Your task to perform on an android device: Show me popular games on the Play Store Image 0: 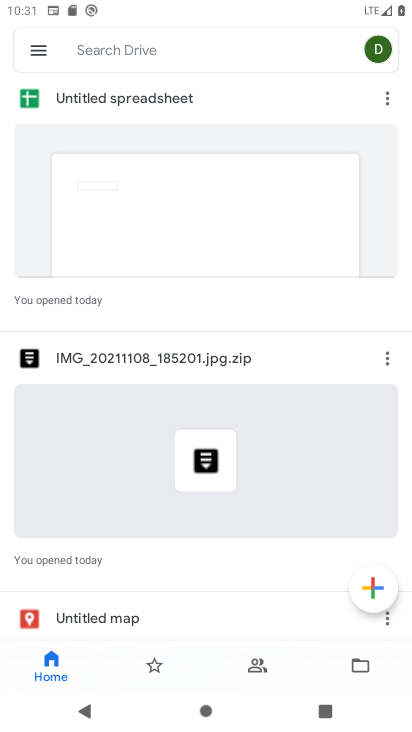
Step 0: press home button
Your task to perform on an android device: Show me popular games on the Play Store Image 1: 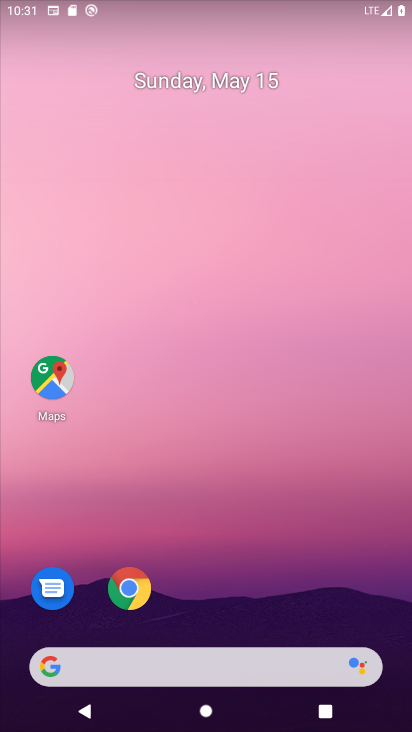
Step 1: drag from (222, 600) to (149, 319)
Your task to perform on an android device: Show me popular games on the Play Store Image 2: 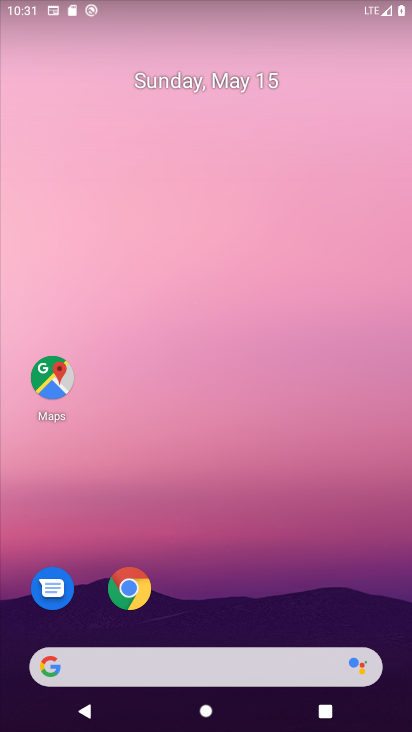
Step 2: drag from (205, 472) to (218, 251)
Your task to perform on an android device: Show me popular games on the Play Store Image 3: 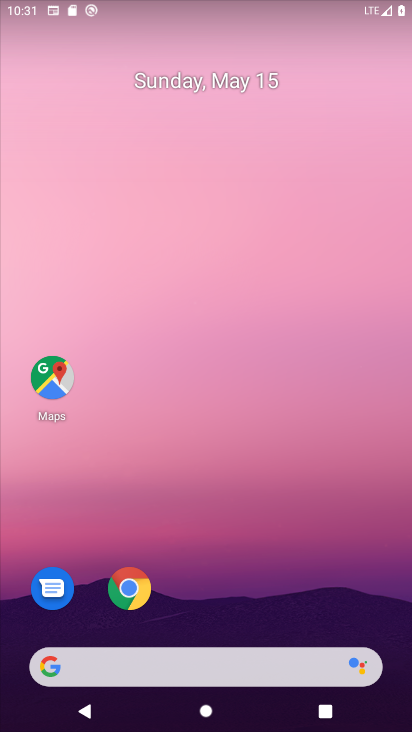
Step 3: drag from (256, 591) to (297, 254)
Your task to perform on an android device: Show me popular games on the Play Store Image 4: 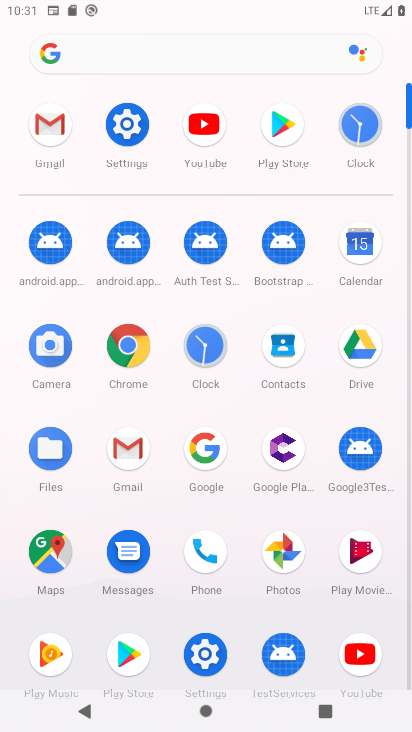
Step 4: click (132, 652)
Your task to perform on an android device: Show me popular games on the Play Store Image 5: 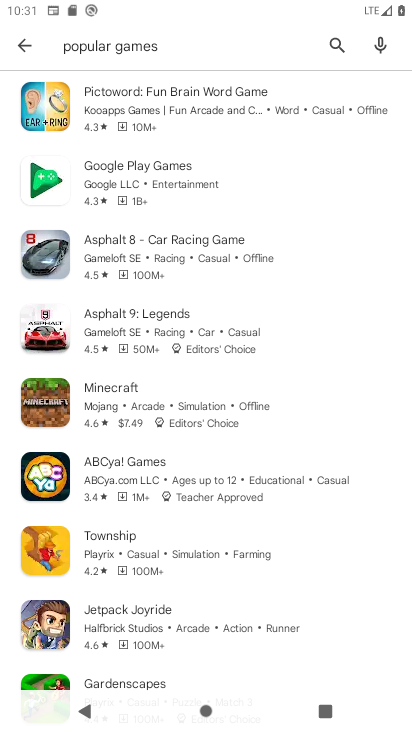
Step 5: task complete